Your task to perform on an android device: What's on my calendar tomorrow? Image 0: 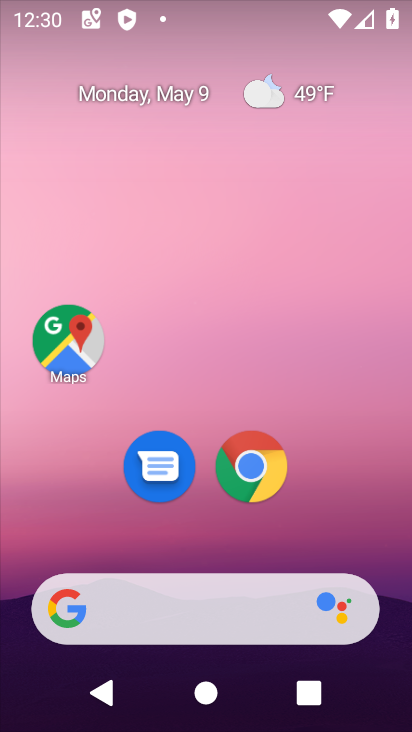
Step 0: drag from (354, 503) to (237, 143)
Your task to perform on an android device: What's on my calendar tomorrow? Image 1: 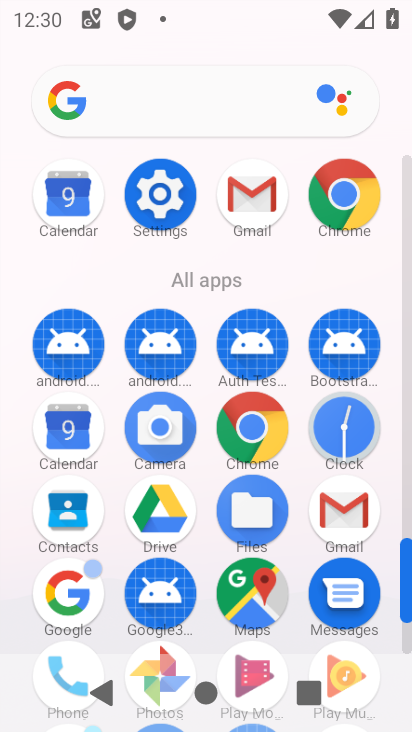
Step 1: click (69, 452)
Your task to perform on an android device: What's on my calendar tomorrow? Image 2: 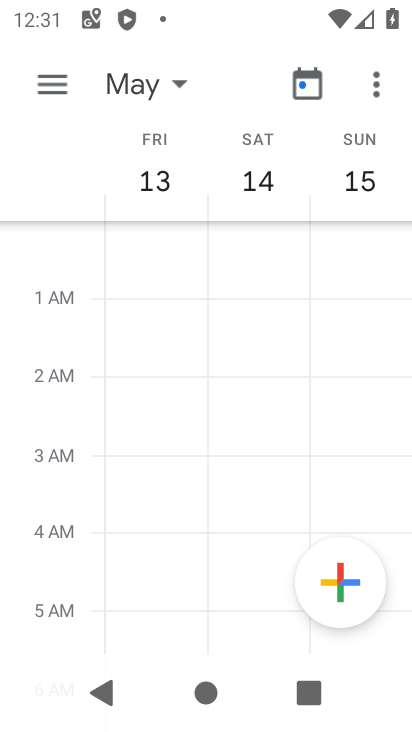
Step 2: click (55, 86)
Your task to perform on an android device: What's on my calendar tomorrow? Image 3: 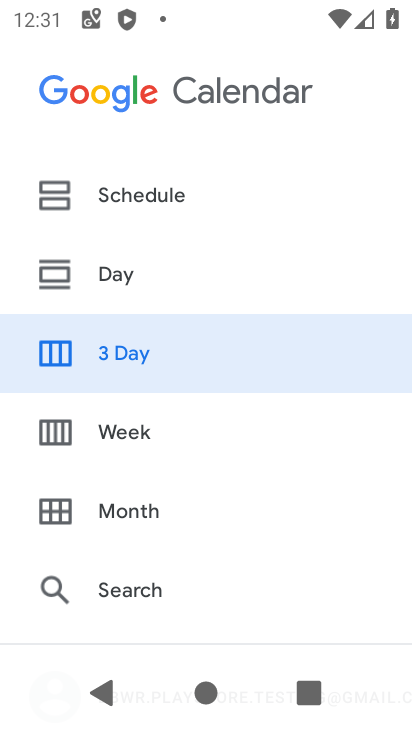
Step 3: click (132, 191)
Your task to perform on an android device: What's on my calendar tomorrow? Image 4: 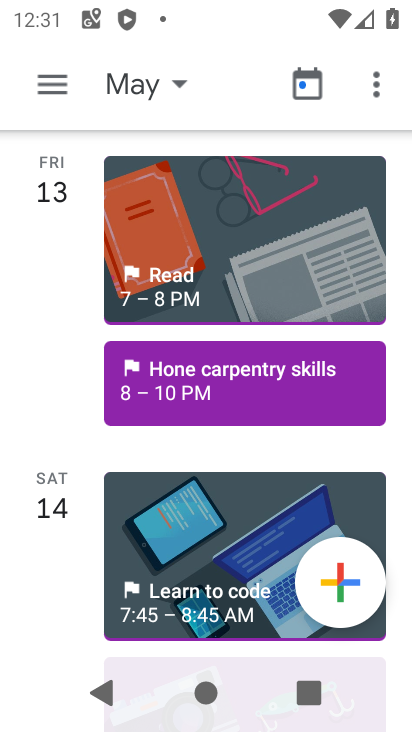
Step 4: click (177, 85)
Your task to perform on an android device: What's on my calendar tomorrow? Image 5: 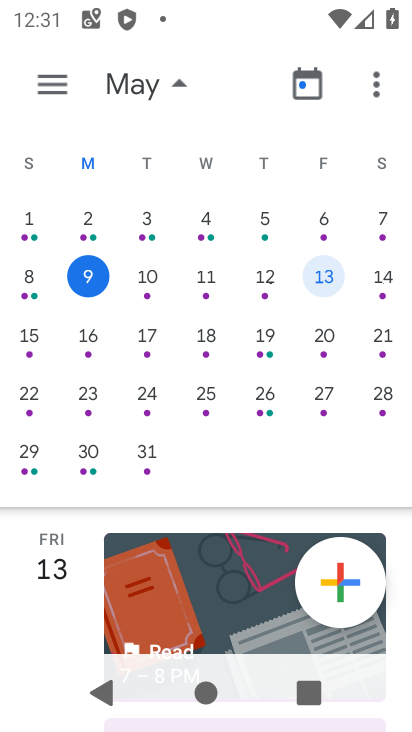
Step 5: click (92, 272)
Your task to perform on an android device: What's on my calendar tomorrow? Image 6: 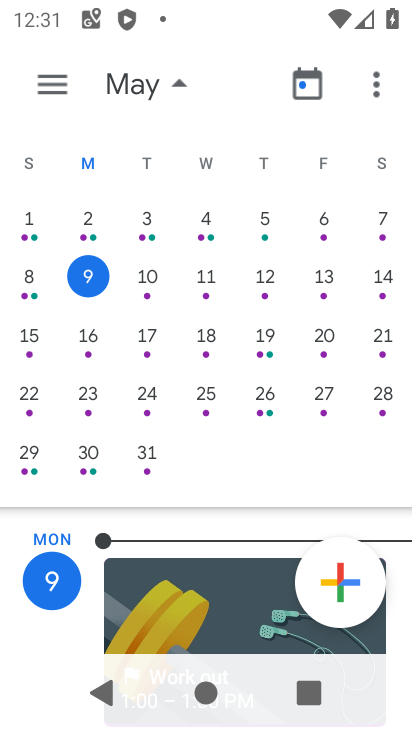
Step 6: click (172, 288)
Your task to perform on an android device: What's on my calendar tomorrow? Image 7: 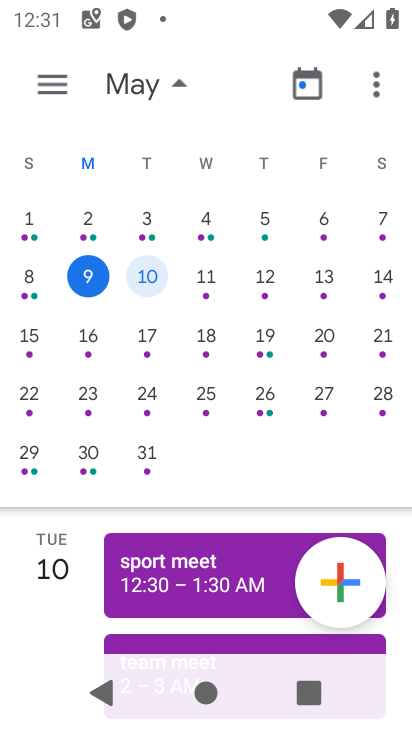
Step 7: click (158, 287)
Your task to perform on an android device: What's on my calendar tomorrow? Image 8: 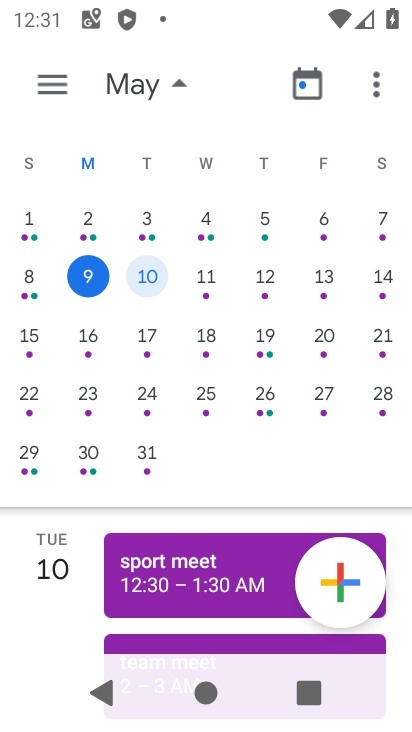
Step 8: click (171, 98)
Your task to perform on an android device: What's on my calendar tomorrow? Image 9: 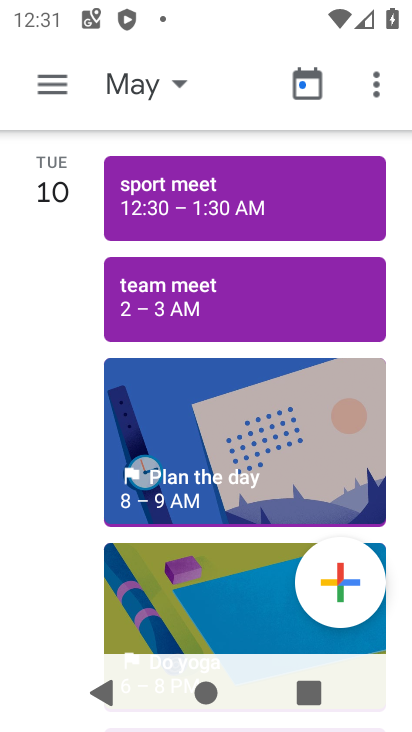
Step 9: task complete